Your task to perform on an android device: change the clock display to digital Image 0: 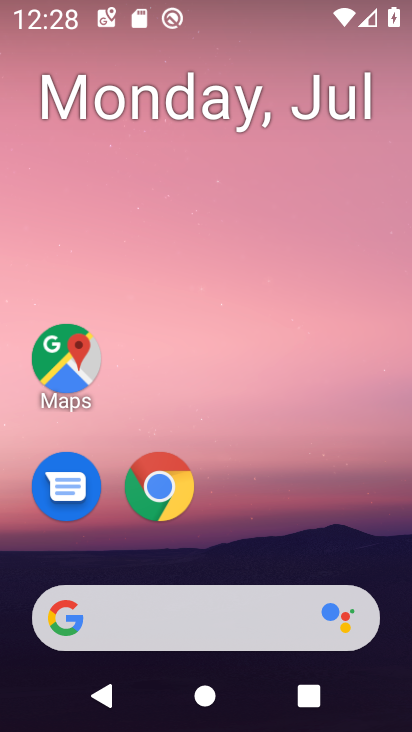
Step 0: press home button
Your task to perform on an android device: change the clock display to digital Image 1: 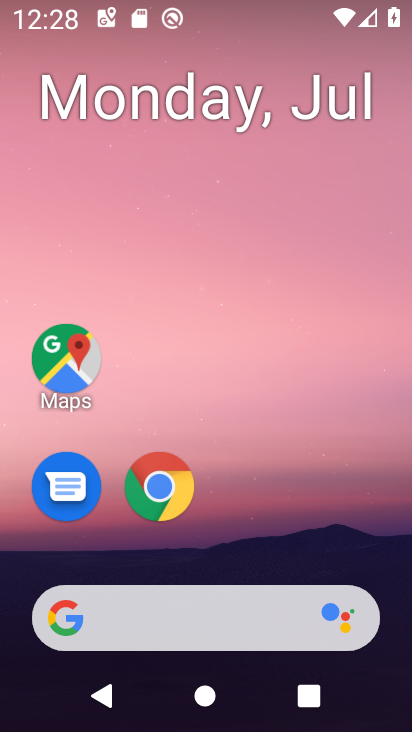
Step 1: drag from (363, 533) to (359, 109)
Your task to perform on an android device: change the clock display to digital Image 2: 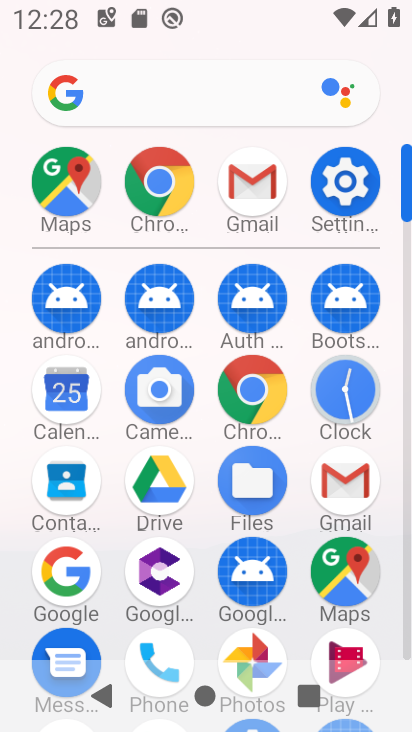
Step 2: click (357, 393)
Your task to perform on an android device: change the clock display to digital Image 3: 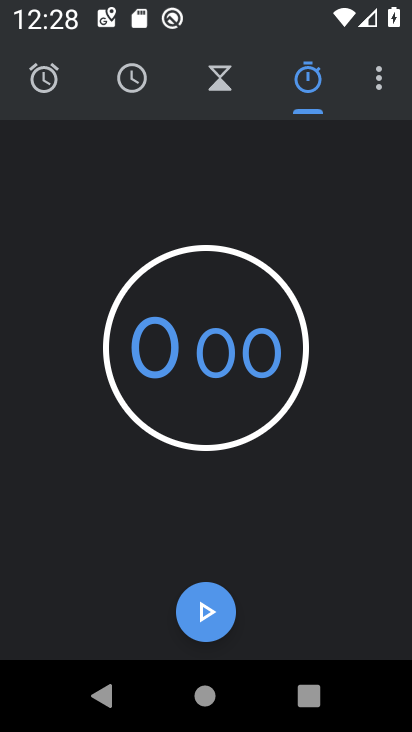
Step 3: click (385, 89)
Your task to perform on an android device: change the clock display to digital Image 4: 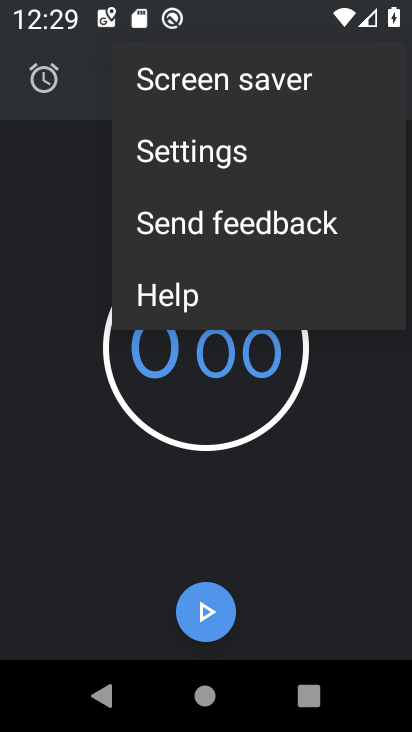
Step 4: click (307, 160)
Your task to perform on an android device: change the clock display to digital Image 5: 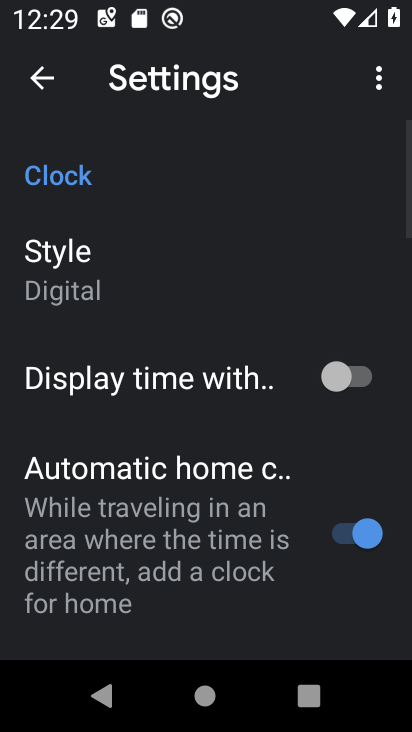
Step 5: task complete